Your task to perform on an android device: turn off wifi Image 0: 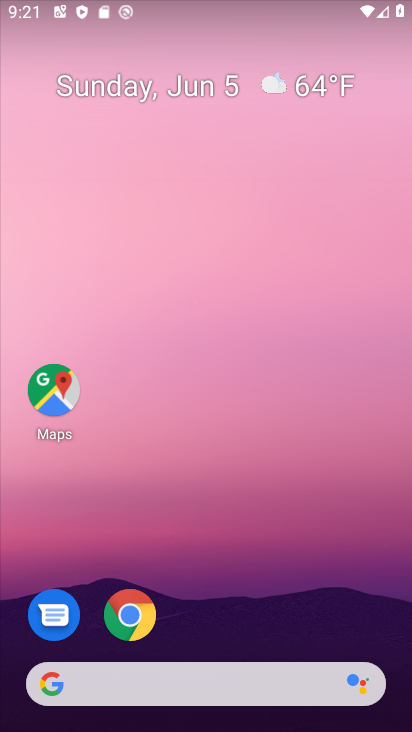
Step 0: drag from (203, 672) to (216, 124)
Your task to perform on an android device: turn off wifi Image 1: 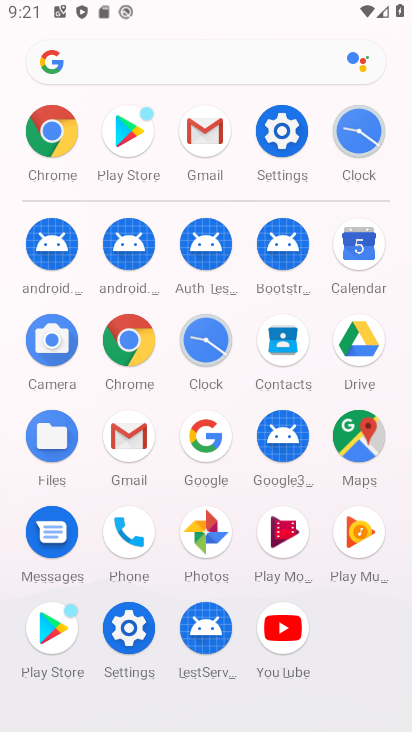
Step 1: click (276, 133)
Your task to perform on an android device: turn off wifi Image 2: 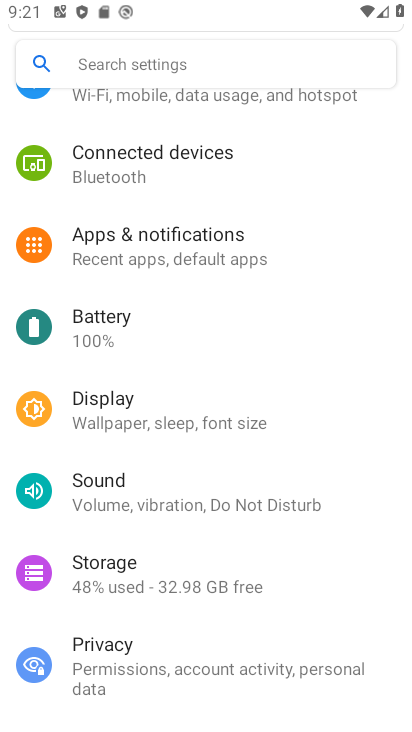
Step 2: drag from (218, 200) to (245, 715)
Your task to perform on an android device: turn off wifi Image 3: 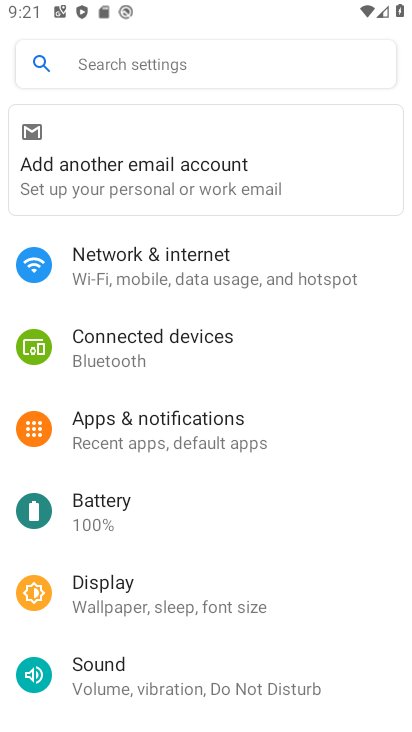
Step 3: click (165, 285)
Your task to perform on an android device: turn off wifi Image 4: 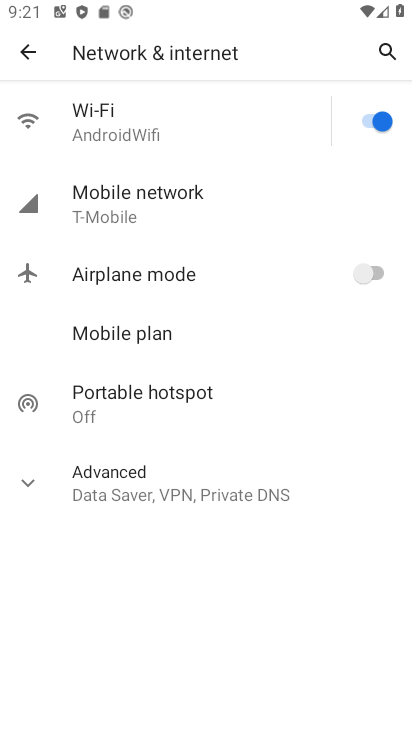
Step 4: click (385, 117)
Your task to perform on an android device: turn off wifi Image 5: 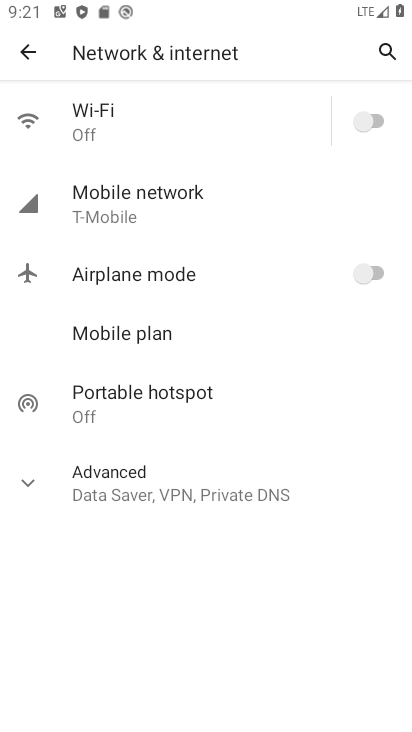
Step 5: task complete